Your task to perform on an android device: Go to privacy settings Image 0: 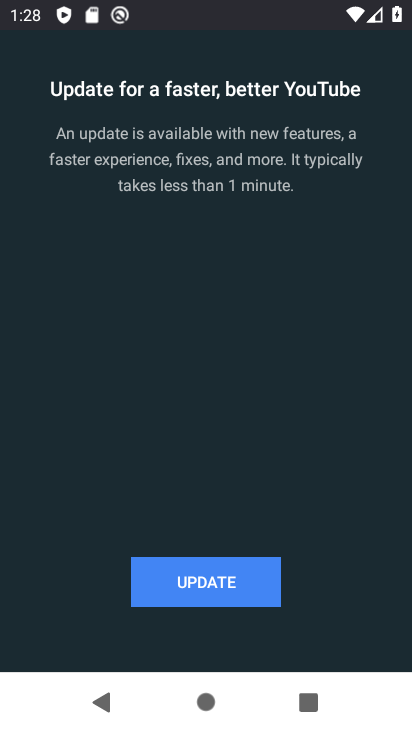
Step 0: press home button
Your task to perform on an android device: Go to privacy settings Image 1: 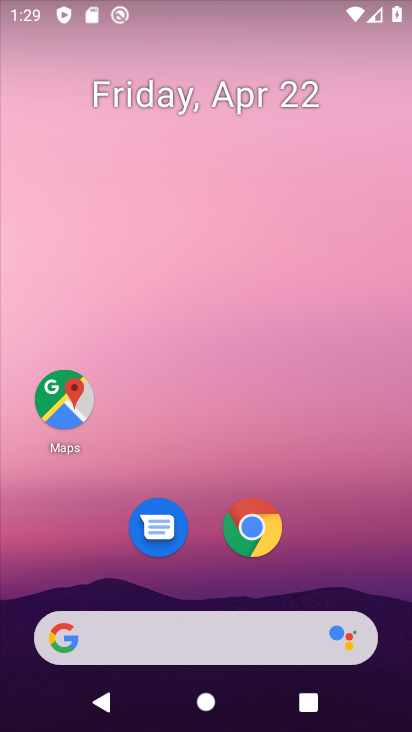
Step 1: drag from (362, 508) to (372, 234)
Your task to perform on an android device: Go to privacy settings Image 2: 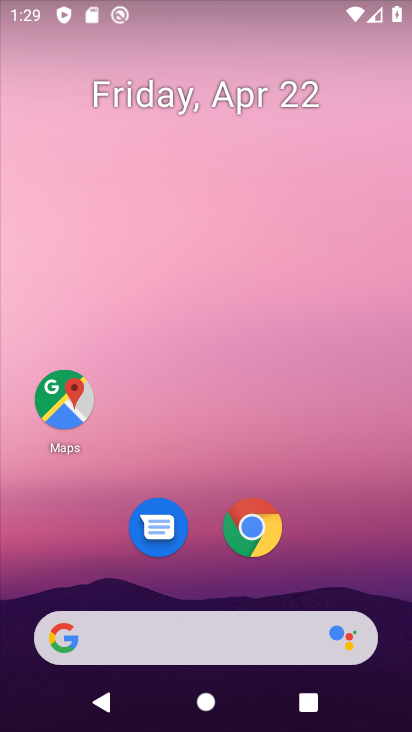
Step 2: drag from (376, 351) to (391, 11)
Your task to perform on an android device: Go to privacy settings Image 3: 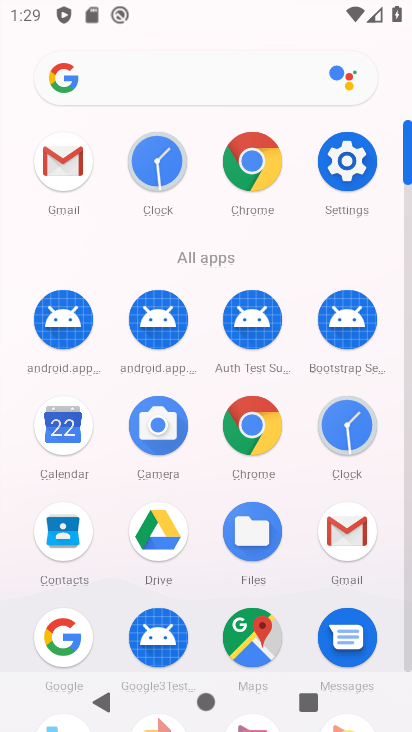
Step 3: click (344, 141)
Your task to perform on an android device: Go to privacy settings Image 4: 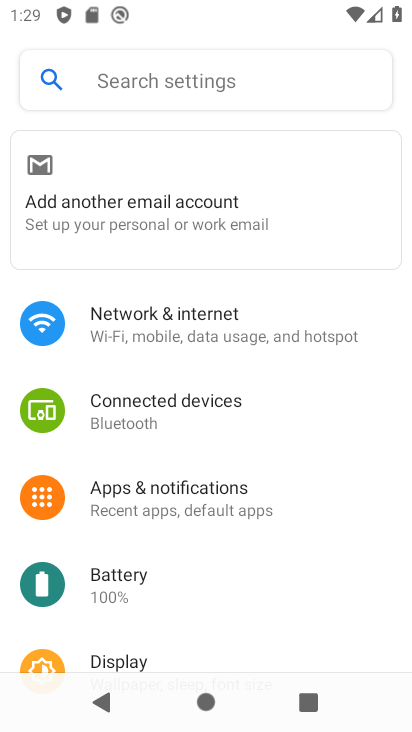
Step 4: drag from (200, 562) to (174, 247)
Your task to perform on an android device: Go to privacy settings Image 5: 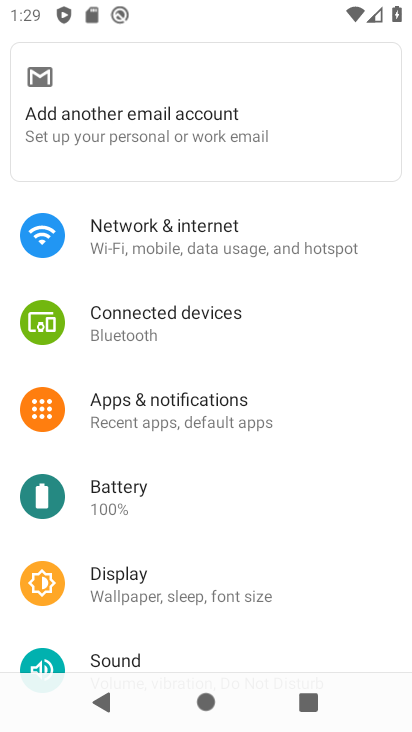
Step 5: drag from (197, 506) to (181, 264)
Your task to perform on an android device: Go to privacy settings Image 6: 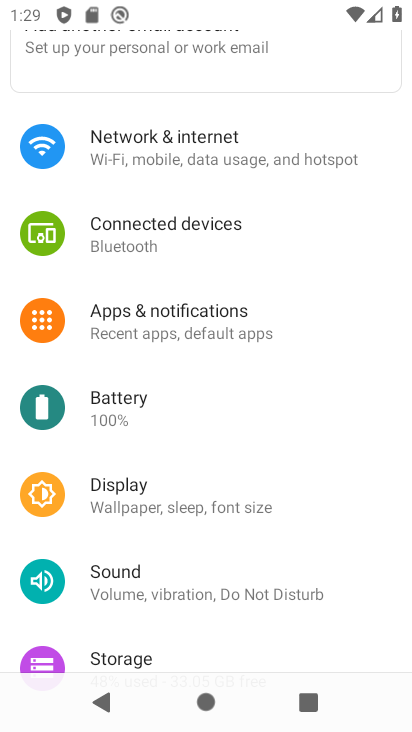
Step 6: drag from (279, 524) to (330, 184)
Your task to perform on an android device: Go to privacy settings Image 7: 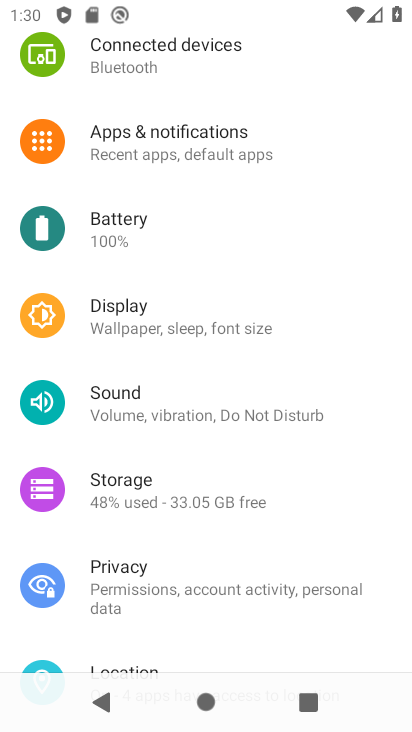
Step 7: click (182, 593)
Your task to perform on an android device: Go to privacy settings Image 8: 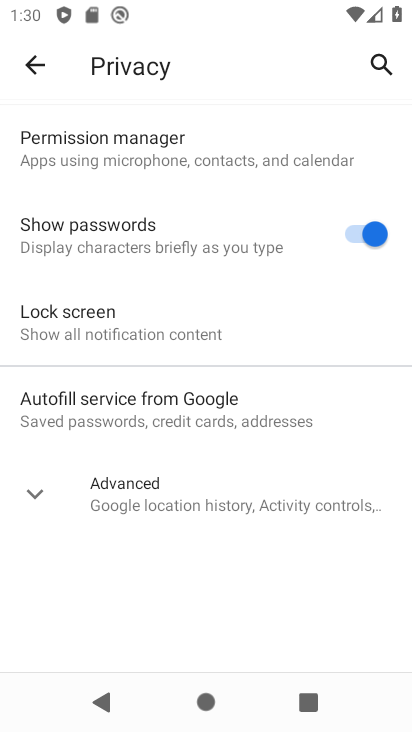
Step 8: task complete